Your task to perform on an android device: Open Reddit.com Image 0: 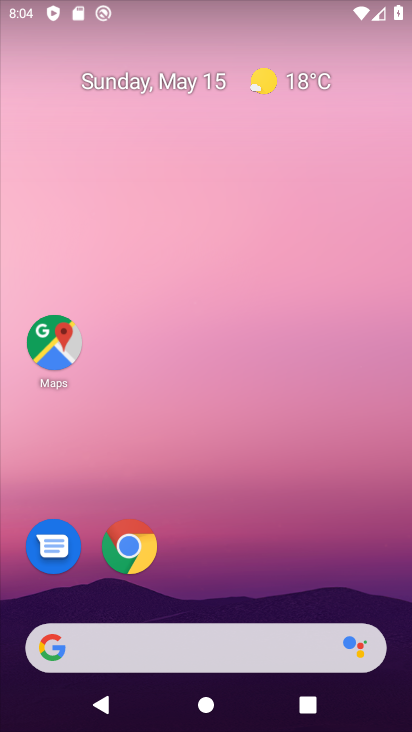
Step 0: drag from (296, 484) to (297, 242)
Your task to perform on an android device: Open Reddit.com Image 1: 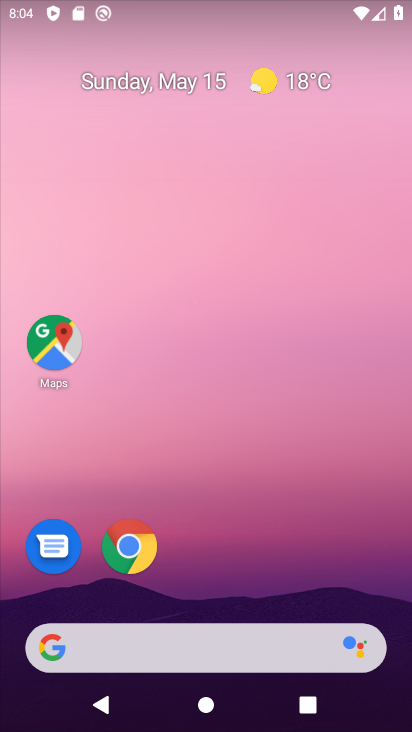
Step 1: drag from (268, 513) to (327, 210)
Your task to perform on an android device: Open Reddit.com Image 2: 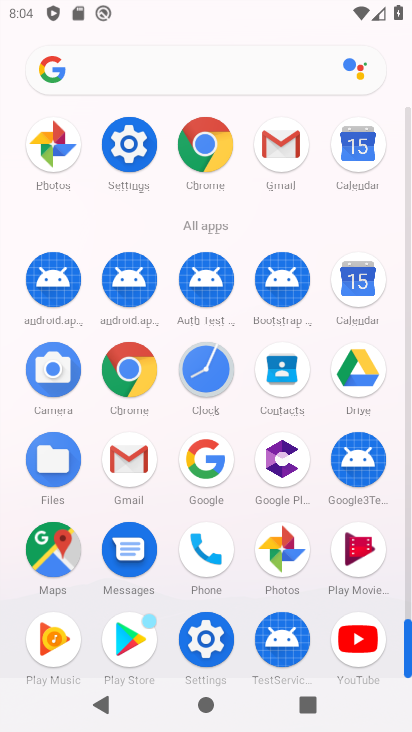
Step 2: click (119, 373)
Your task to perform on an android device: Open Reddit.com Image 3: 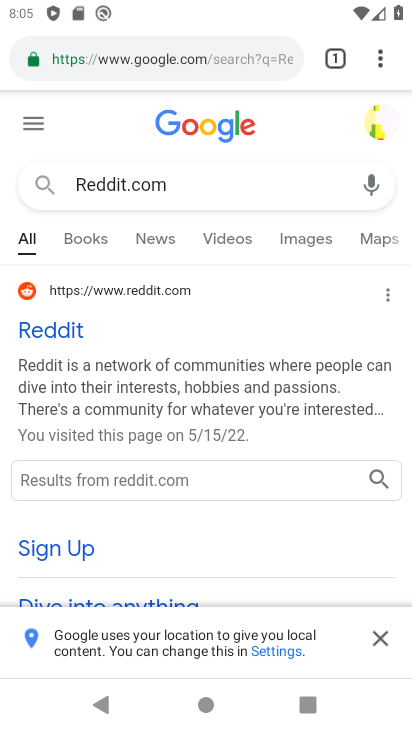
Step 3: task complete